Your task to perform on an android device: Search for Mexican restaurants on Maps Image 0: 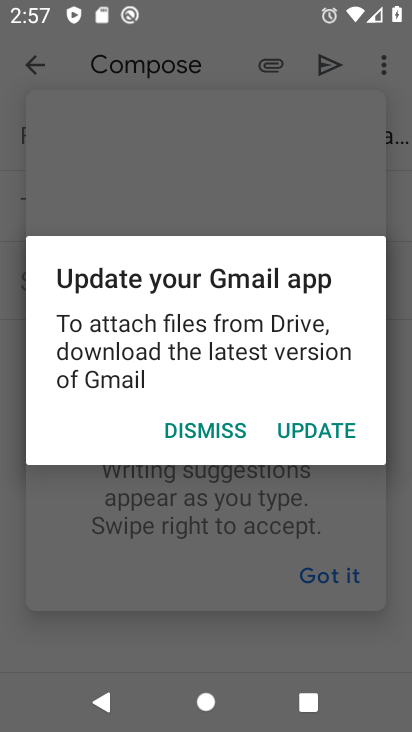
Step 0: press home button
Your task to perform on an android device: Search for Mexican restaurants on Maps Image 1: 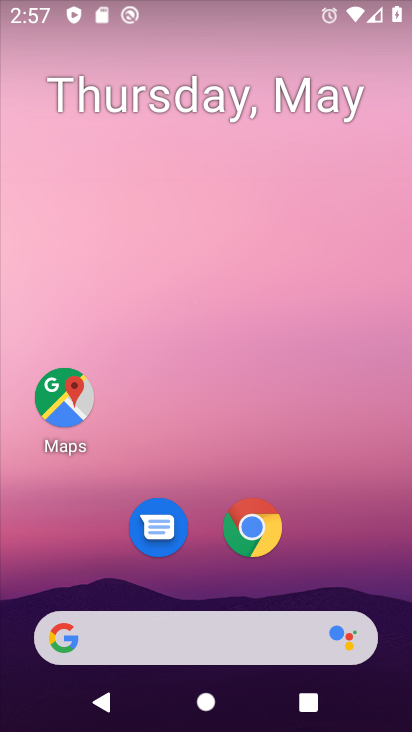
Step 1: click (55, 397)
Your task to perform on an android device: Search for Mexican restaurants on Maps Image 2: 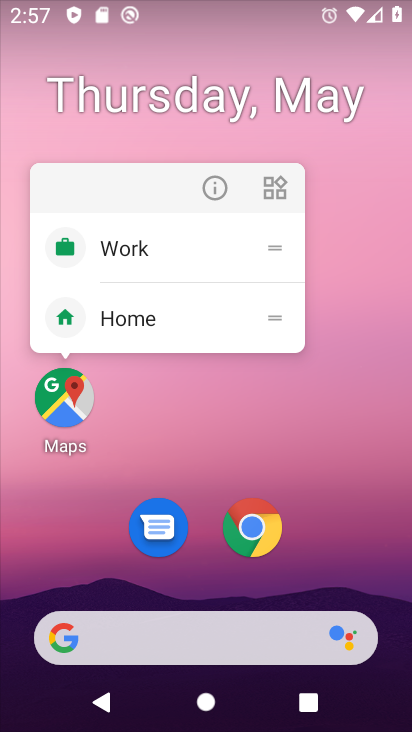
Step 2: click (56, 398)
Your task to perform on an android device: Search for Mexican restaurants on Maps Image 3: 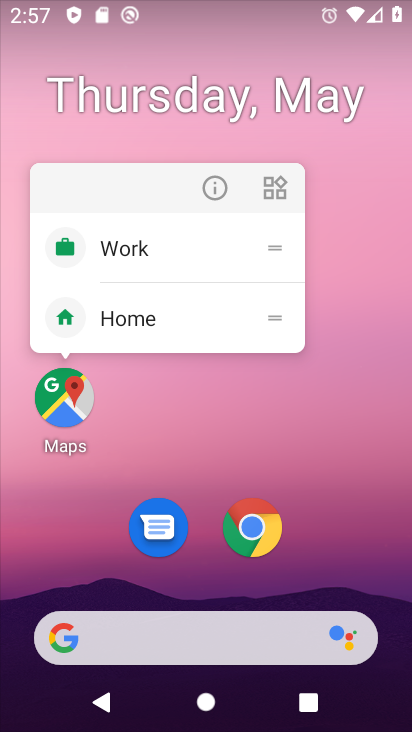
Step 3: click (66, 403)
Your task to perform on an android device: Search for Mexican restaurants on Maps Image 4: 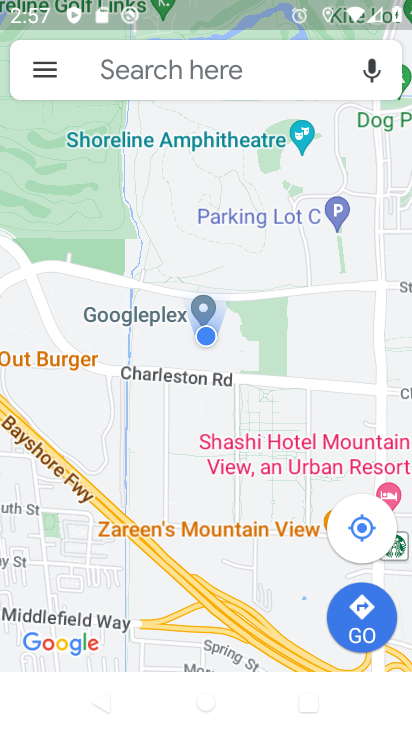
Step 4: click (66, 408)
Your task to perform on an android device: Search for Mexican restaurants on Maps Image 5: 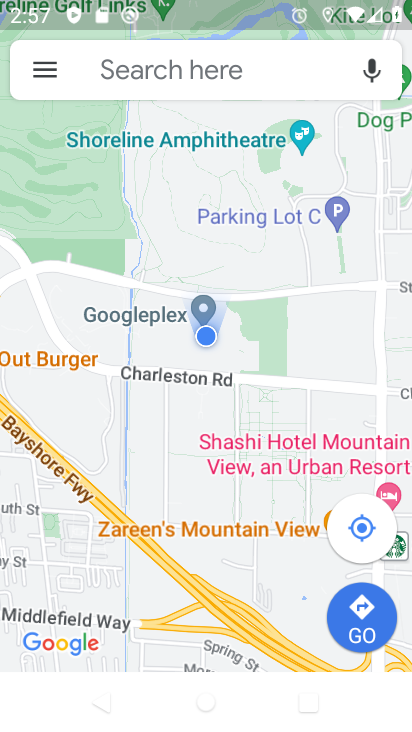
Step 5: click (159, 51)
Your task to perform on an android device: Search for Mexican restaurants on Maps Image 6: 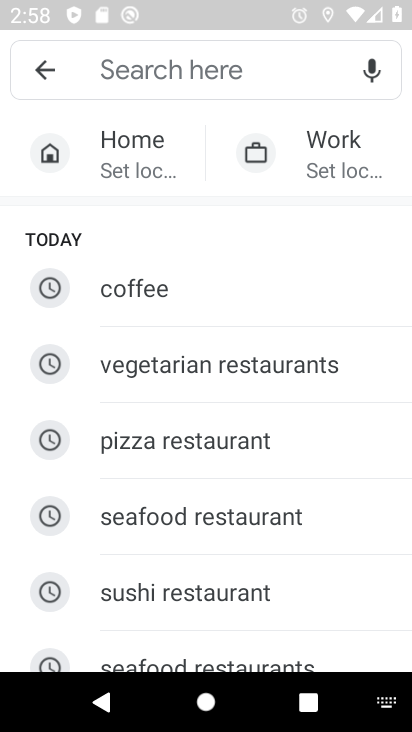
Step 6: type "Mexican restaurants"
Your task to perform on an android device: Search for Mexican restaurants on Maps Image 7: 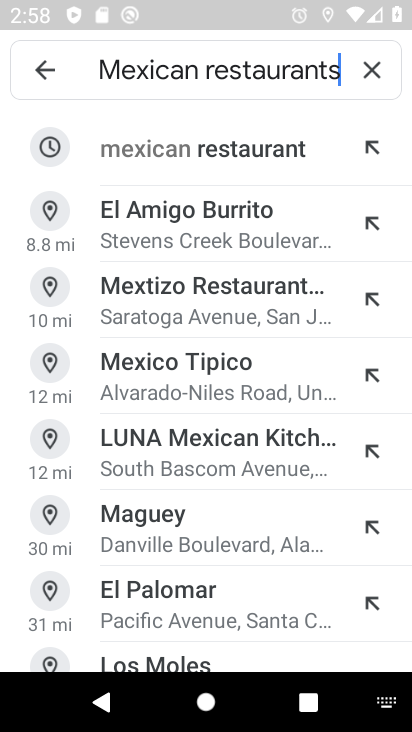
Step 7: click (229, 160)
Your task to perform on an android device: Search for Mexican restaurants on Maps Image 8: 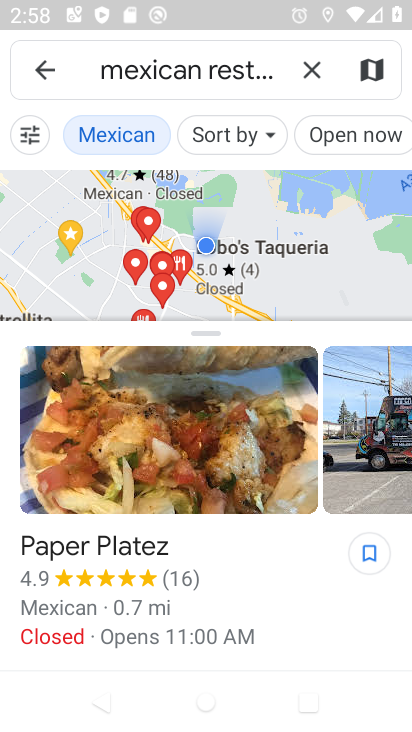
Step 8: task complete